Your task to perform on an android device: turn on the 12-hour format for clock Image 0: 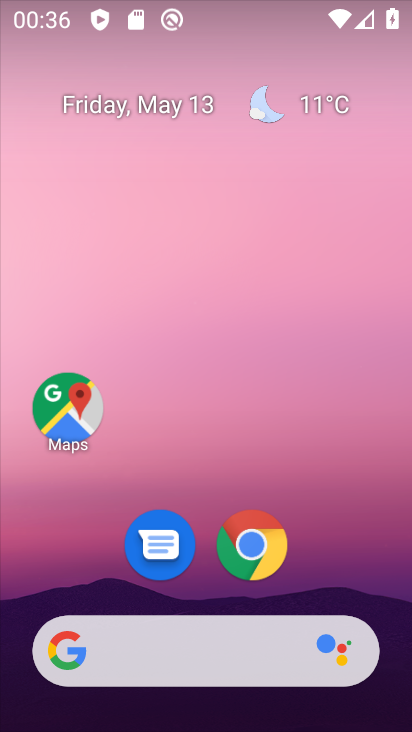
Step 0: drag from (339, 502) to (324, 70)
Your task to perform on an android device: turn on the 12-hour format for clock Image 1: 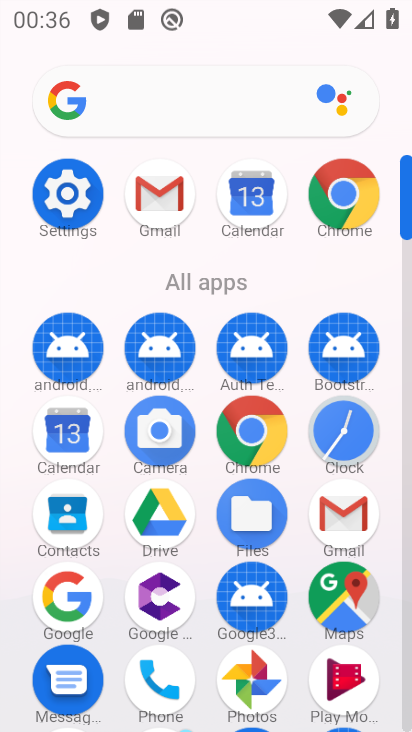
Step 1: drag from (247, 561) to (247, 429)
Your task to perform on an android device: turn on the 12-hour format for clock Image 2: 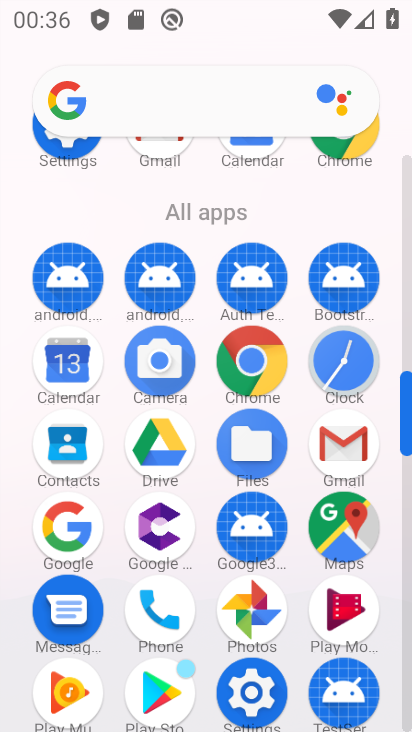
Step 2: click (353, 362)
Your task to perform on an android device: turn on the 12-hour format for clock Image 3: 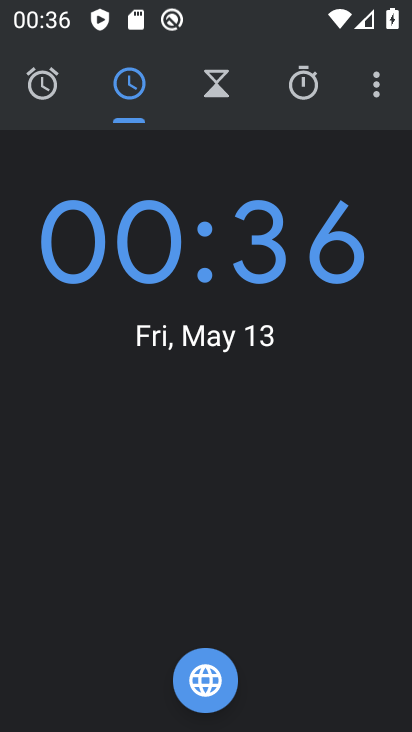
Step 3: click (380, 89)
Your task to perform on an android device: turn on the 12-hour format for clock Image 4: 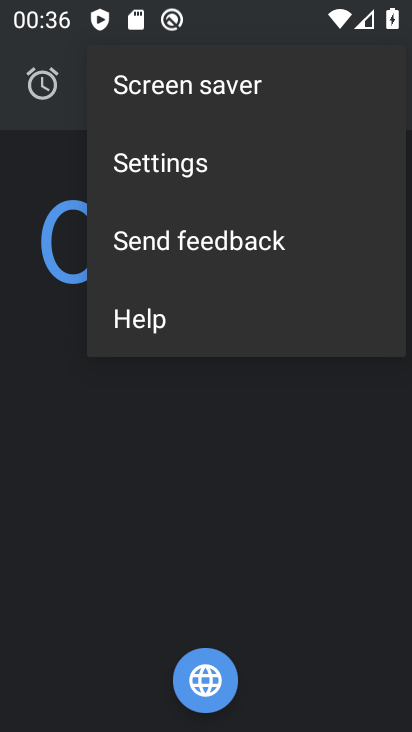
Step 4: click (190, 173)
Your task to perform on an android device: turn on the 12-hour format for clock Image 5: 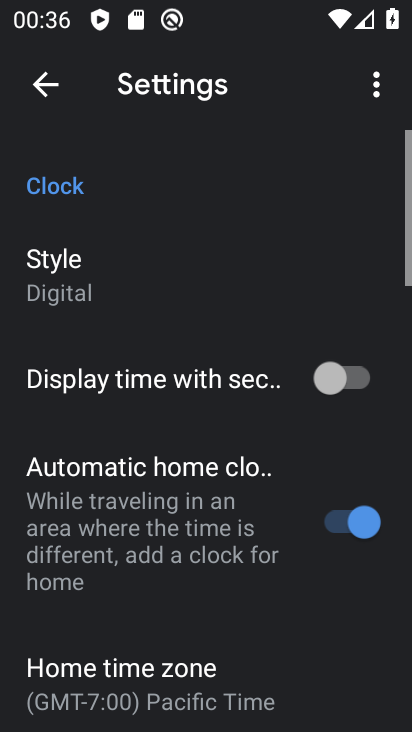
Step 5: drag from (245, 628) to (209, 239)
Your task to perform on an android device: turn on the 12-hour format for clock Image 6: 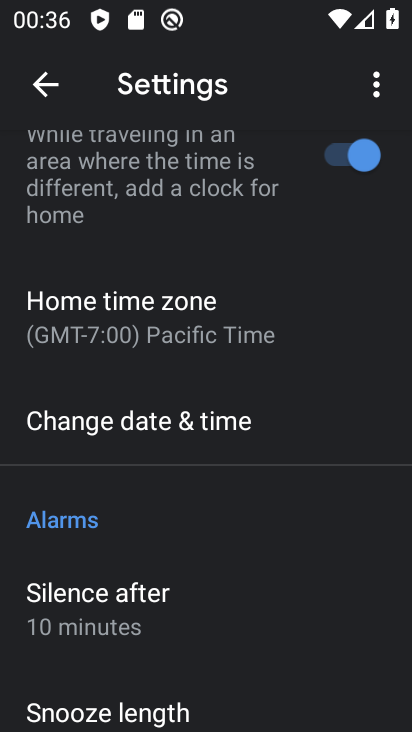
Step 6: click (198, 424)
Your task to perform on an android device: turn on the 12-hour format for clock Image 7: 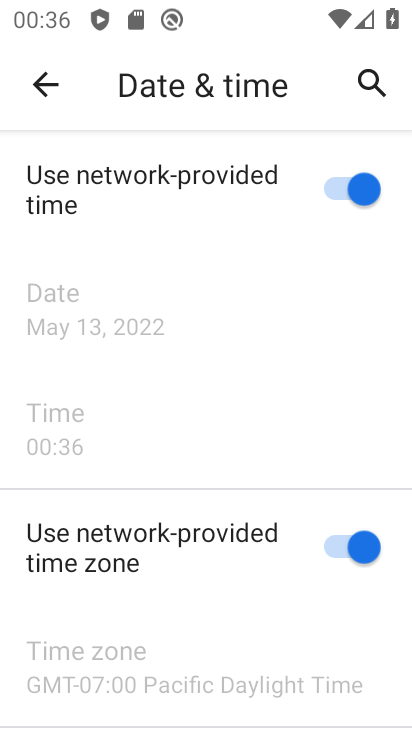
Step 7: task complete